Your task to perform on an android device: Open accessibility settings Image 0: 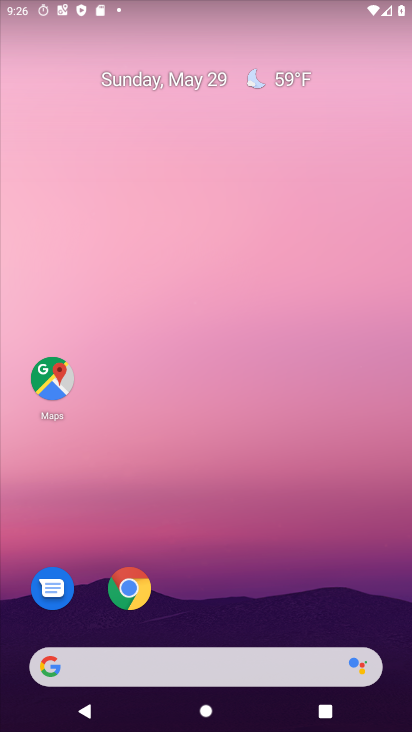
Step 0: drag from (219, 571) to (353, 30)
Your task to perform on an android device: Open accessibility settings Image 1: 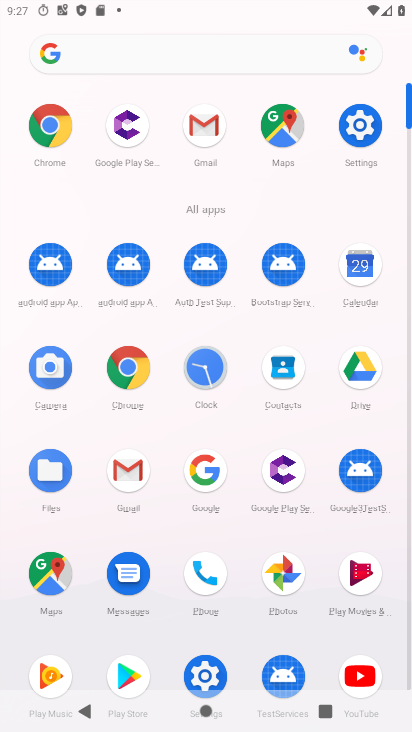
Step 1: click (378, 133)
Your task to perform on an android device: Open accessibility settings Image 2: 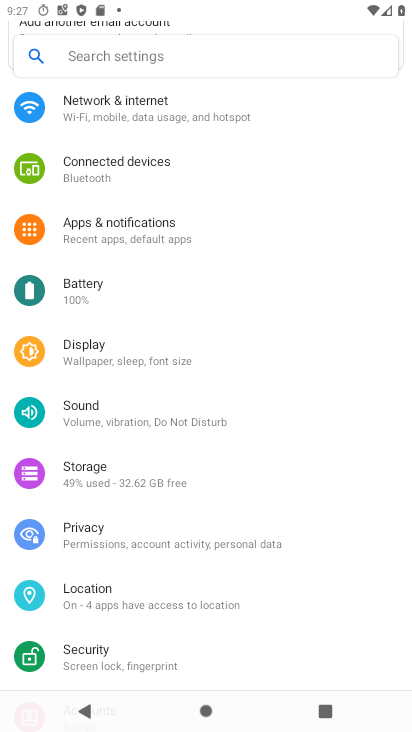
Step 2: drag from (171, 609) to (239, 109)
Your task to perform on an android device: Open accessibility settings Image 3: 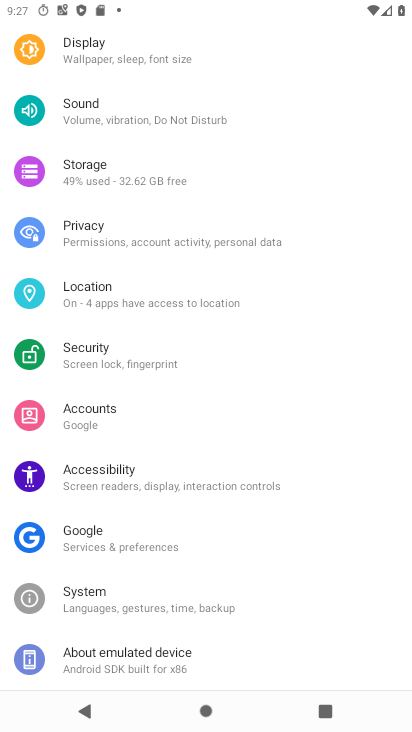
Step 3: click (161, 482)
Your task to perform on an android device: Open accessibility settings Image 4: 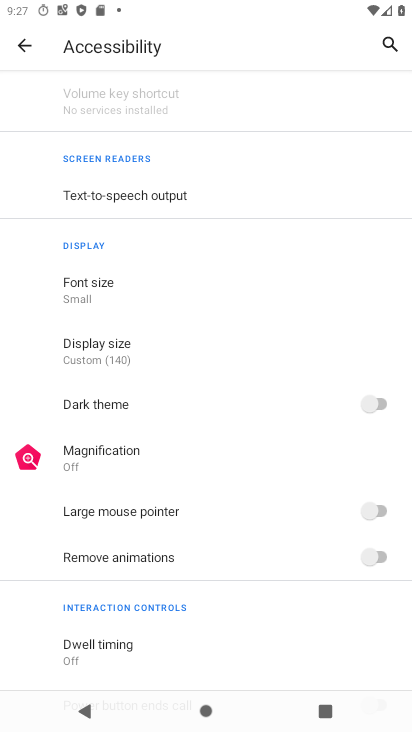
Step 4: task complete